Your task to perform on an android device: show emergency info Image 0: 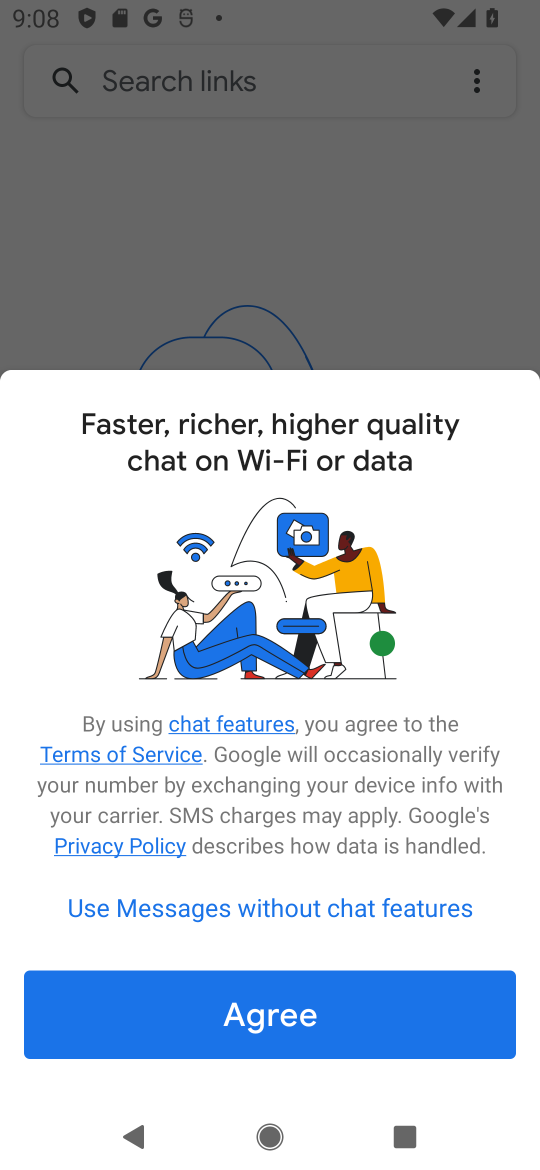
Step 0: press home button
Your task to perform on an android device: show emergency info Image 1: 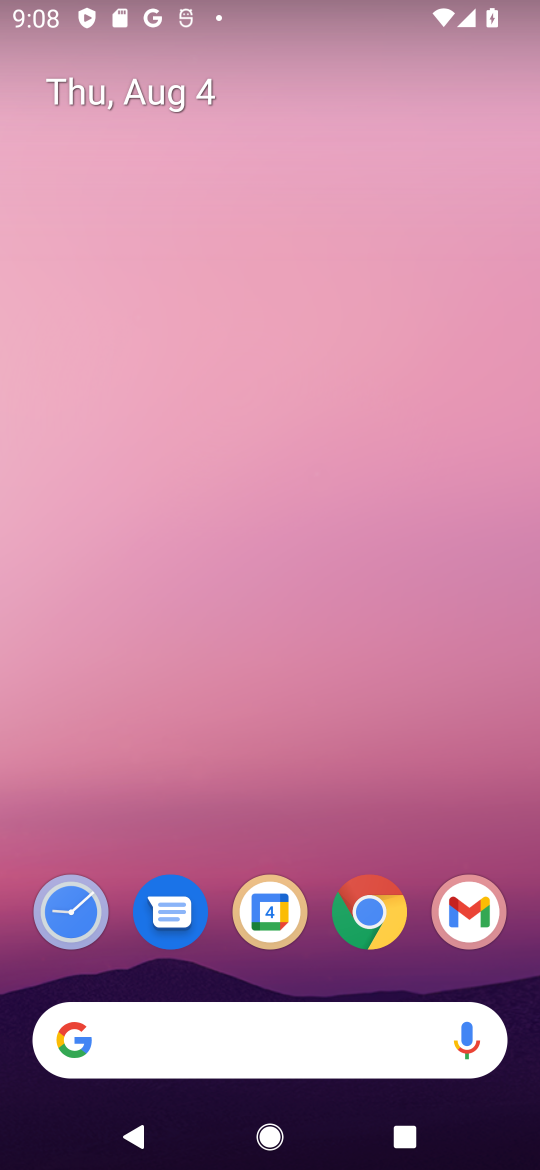
Step 1: drag from (400, 825) to (276, 16)
Your task to perform on an android device: show emergency info Image 2: 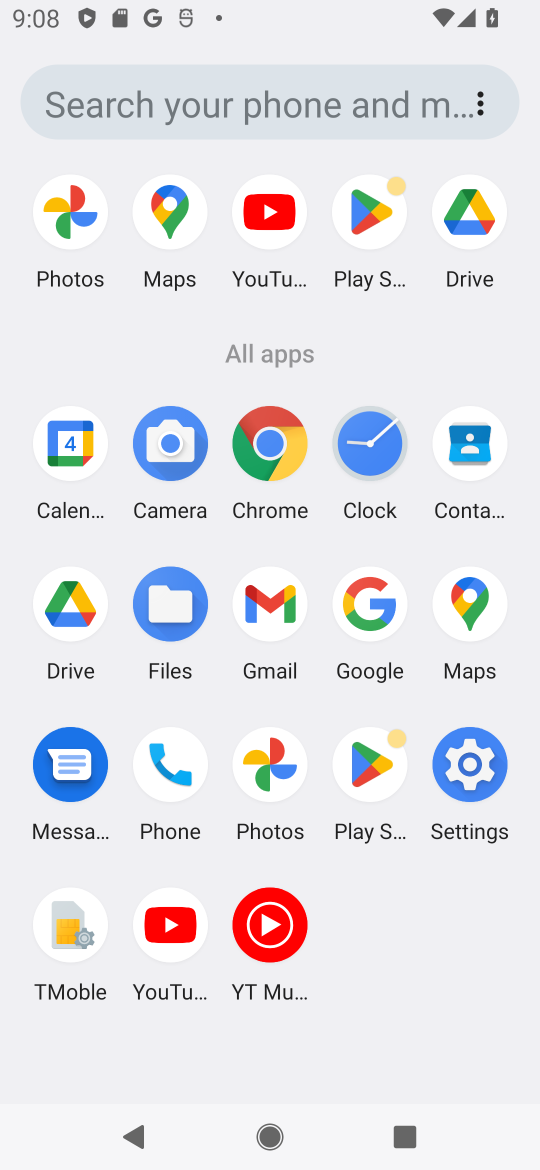
Step 2: click (448, 762)
Your task to perform on an android device: show emergency info Image 3: 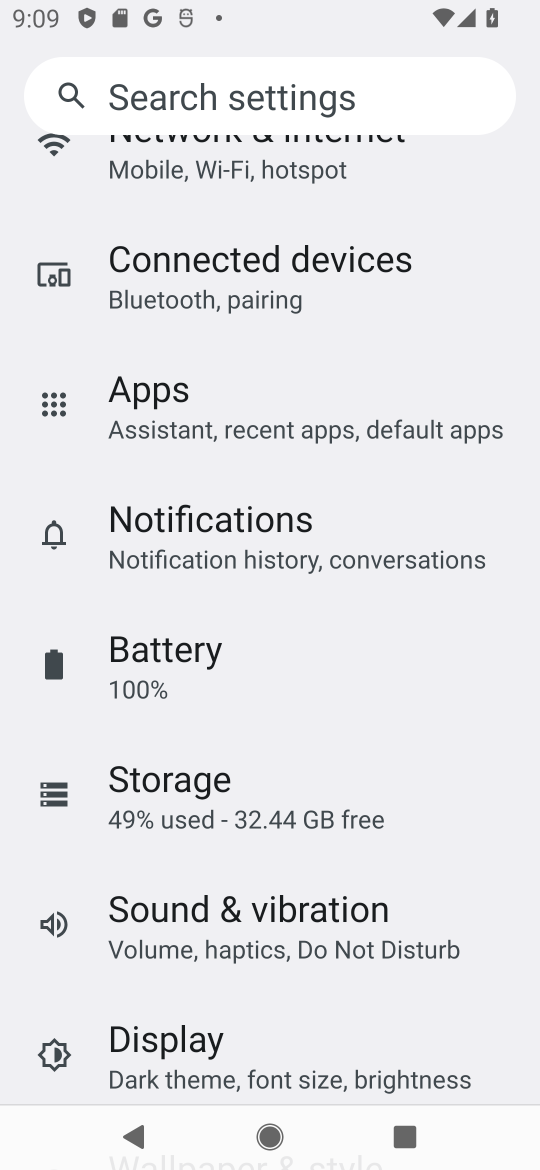
Step 3: drag from (340, 1022) to (272, 390)
Your task to perform on an android device: show emergency info Image 4: 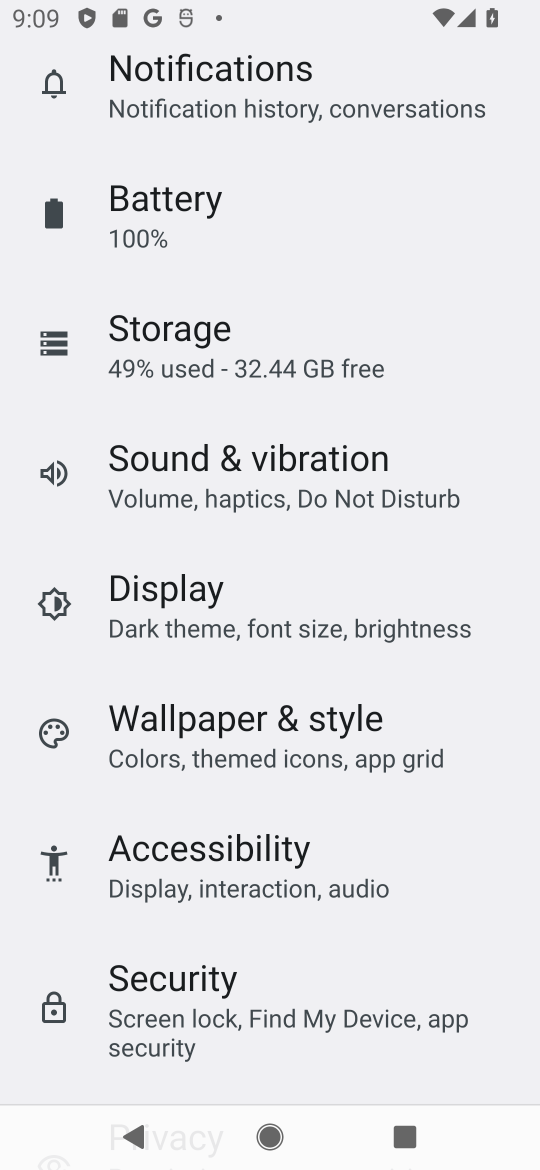
Step 4: drag from (337, 952) to (250, 308)
Your task to perform on an android device: show emergency info Image 5: 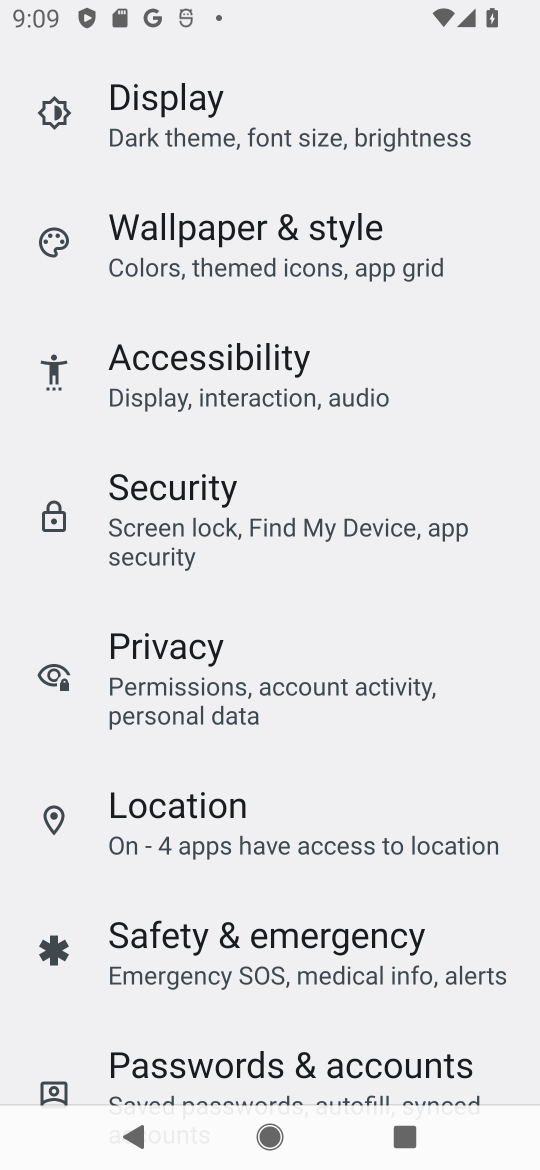
Step 5: click (334, 940)
Your task to perform on an android device: show emergency info Image 6: 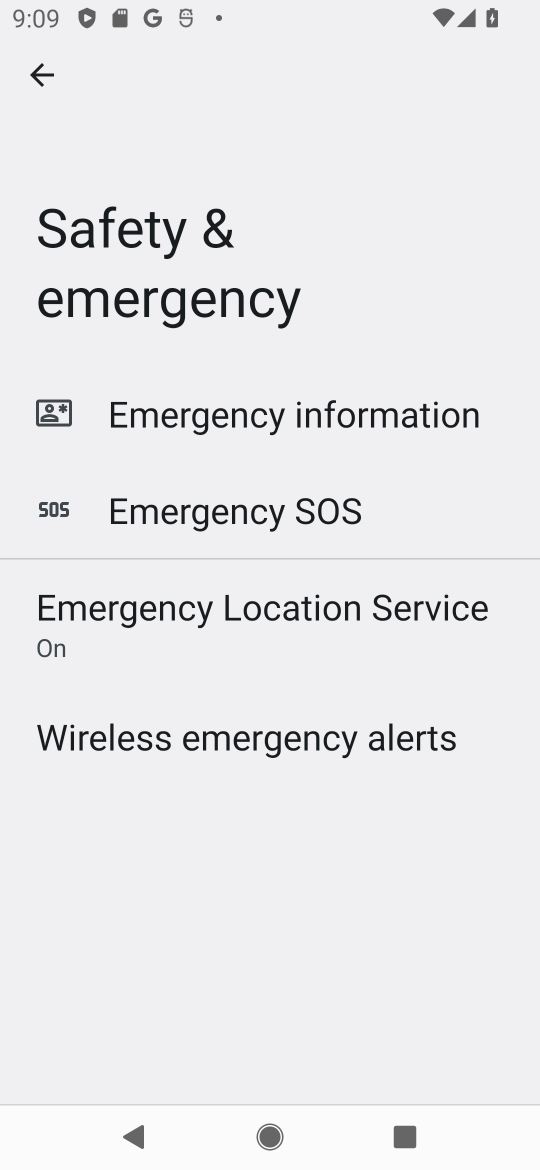
Step 6: click (369, 425)
Your task to perform on an android device: show emergency info Image 7: 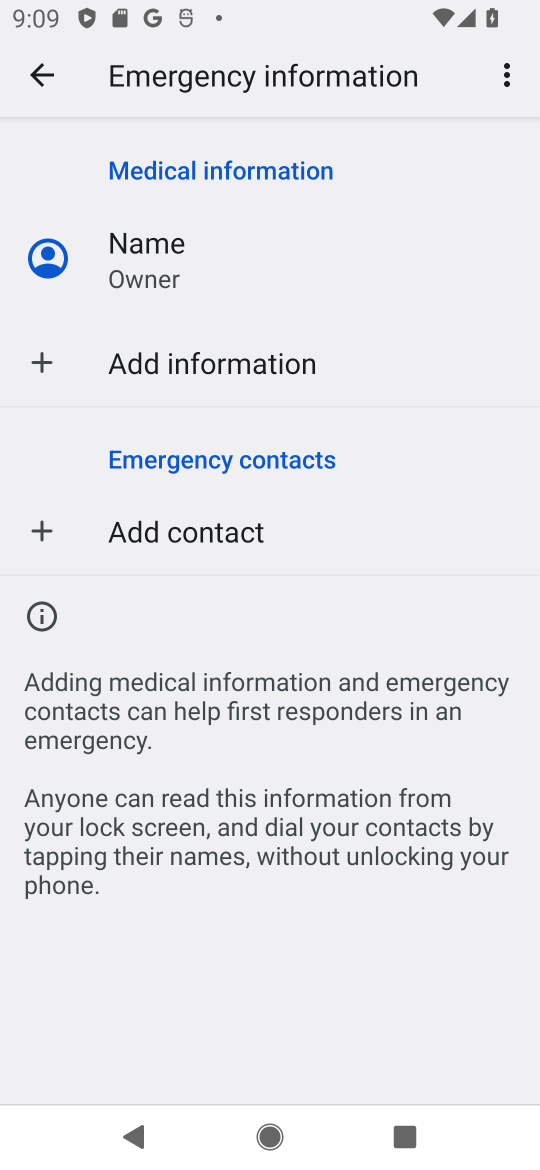
Step 7: task complete